Your task to perform on an android device: Check the weather Image 0: 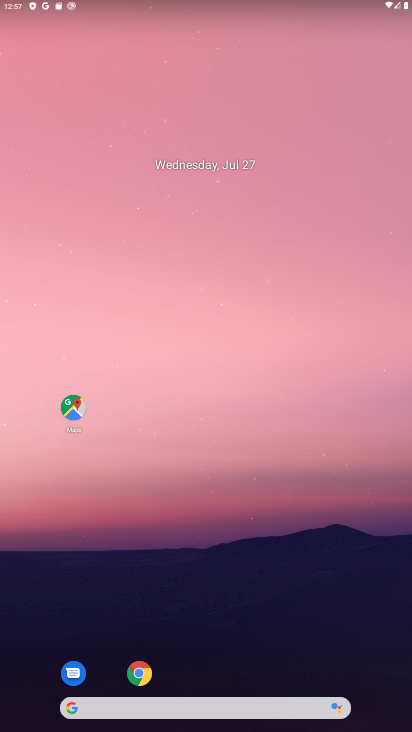
Step 0: click (138, 707)
Your task to perform on an android device: Check the weather Image 1: 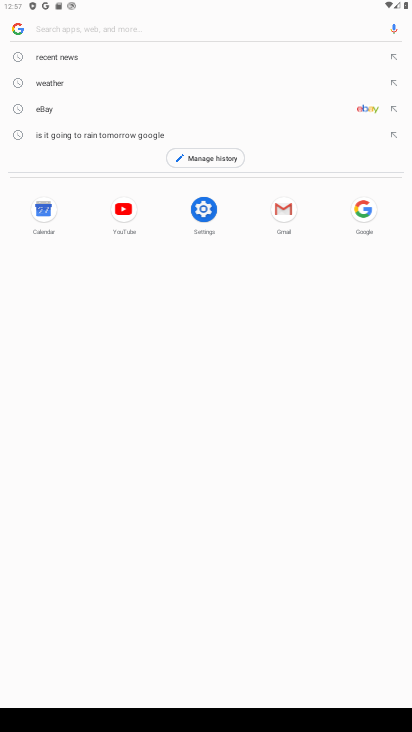
Step 1: click (49, 85)
Your task to perform on an android device: Check the weather Image 2: 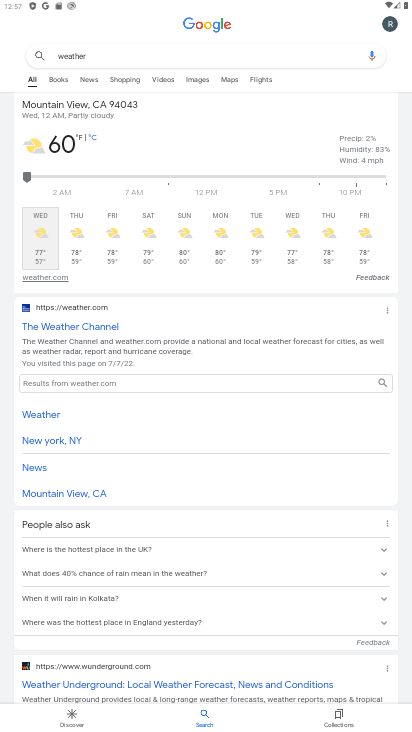
Step 2: task complete